Your task to perform on an android device: turn on the 12-hour format for clock Image 0: 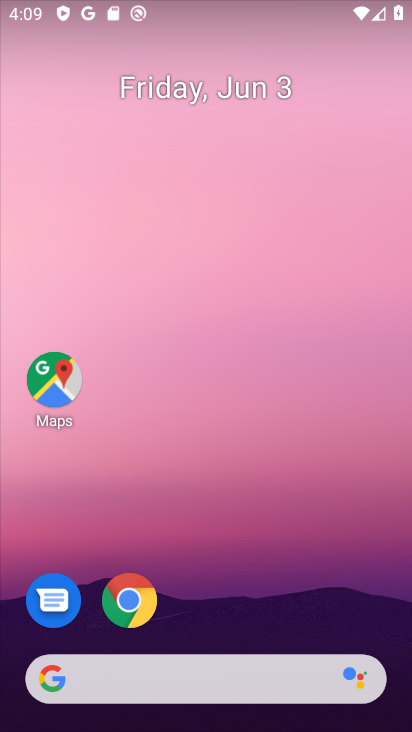
Step 0: drag from (394, 540) to (341, 38)
Your task to perform on an android device: turn on the 12-hour format for clock Image 1: 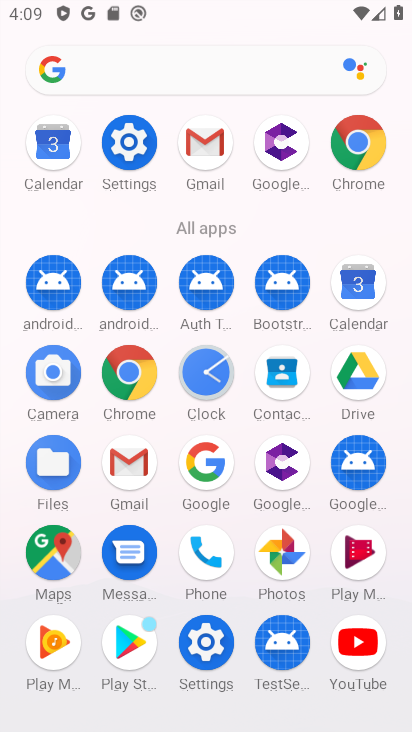
Step 1: click (138, 126)
Your task to perform on an android device: turn on the 12-hour format for clock Image 2: 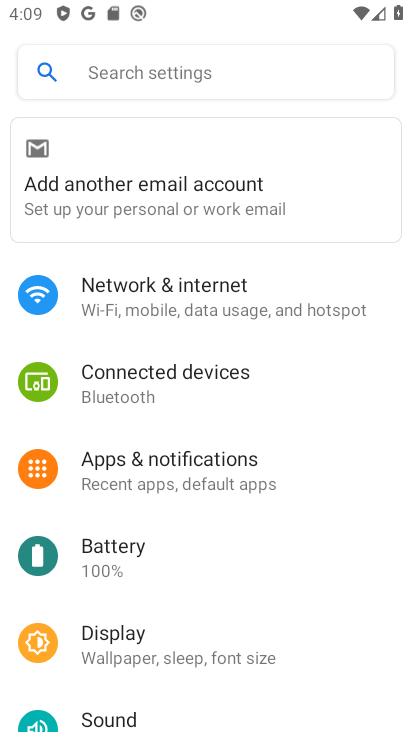
Step 2: press home button
Your task to perform on an android device: turn on the 12-hour format for clock Image 3: 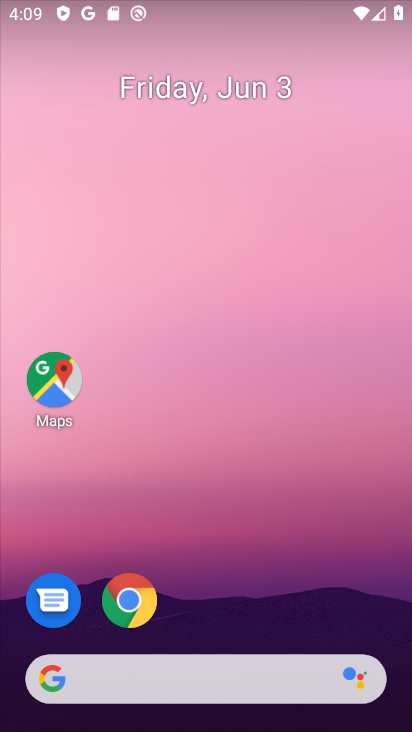
Step 3: drag from (389, 693) to (321, 193)
Your task to perform on an android device: turn on the 12-hour format for clock Image 4: 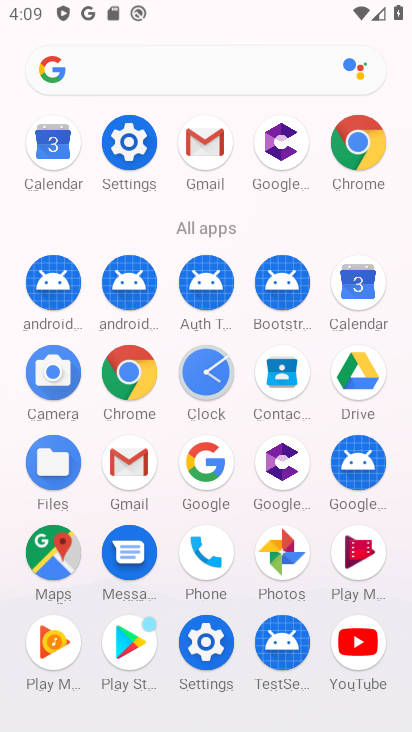
Step 4: click (212, 371)
Your task to perform on an android device: turn on the 12-hour format for clock Image 5: 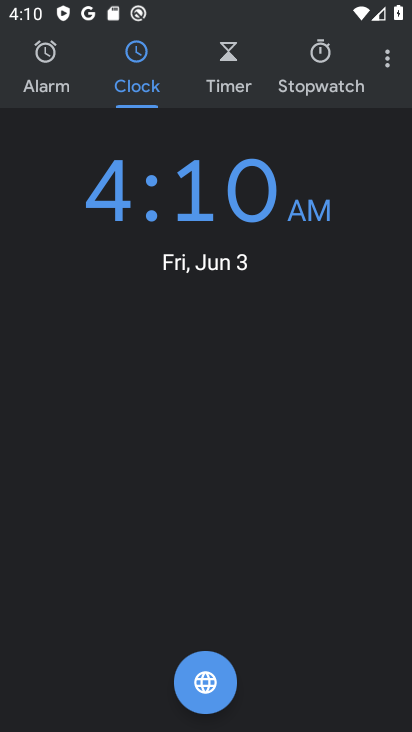
Step 5: click (388, 63)
Your task to perform on an android device: turn on the 12-hour format for clock Image 6: 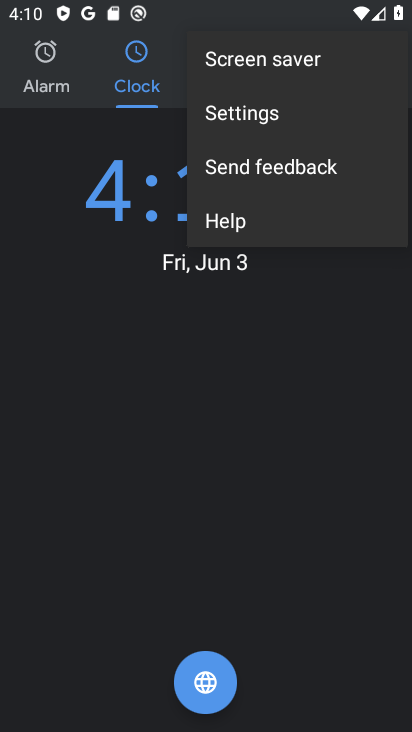
Step 6: click (254, 111)
Your task to perform on an android device: turn on the 12-hour format for clock Image 7: 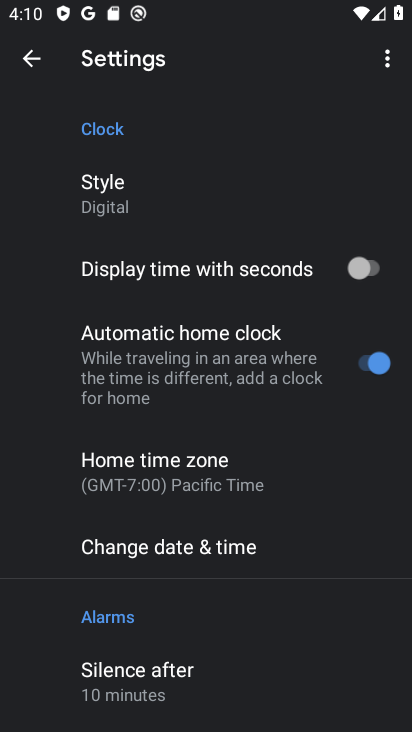
Step 7: click (227, 557)
Your task to perform on an android device: turn on the 12-hour format for clock Image 8: 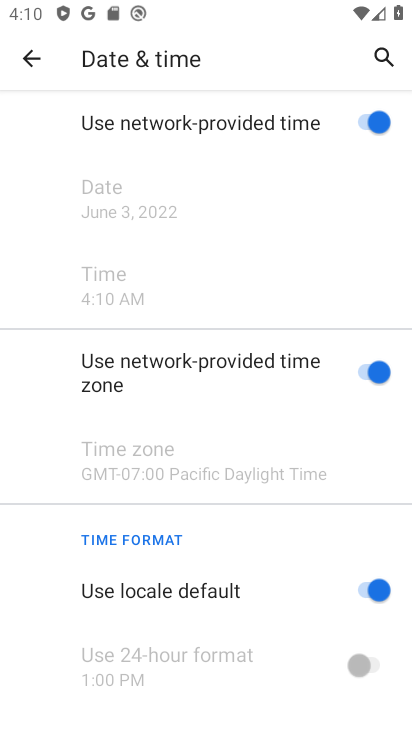
Step 8: task complete